Your task to perform on an android device: Open Amazon Image 0: 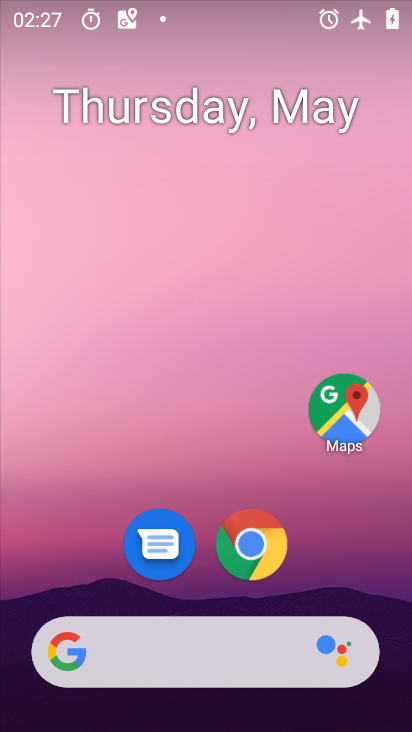
Step 0: drag from (381, 588) to (400, 246)
Your task to perform on an android device: Open Amazon Image 1: 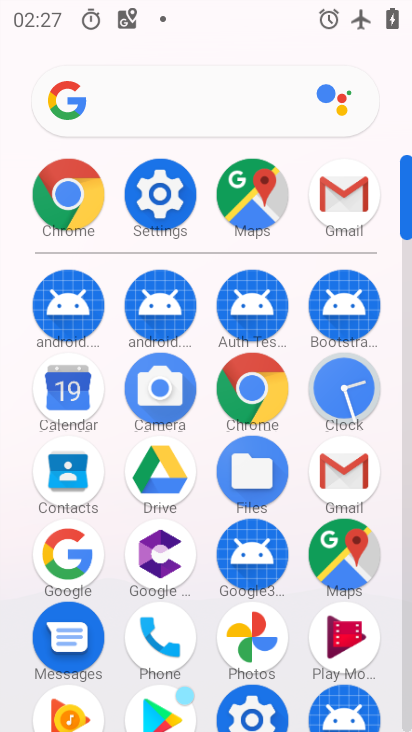
Step 1: click (262, 398)
Your task to perform on an android device: Open Amazon Image 2: 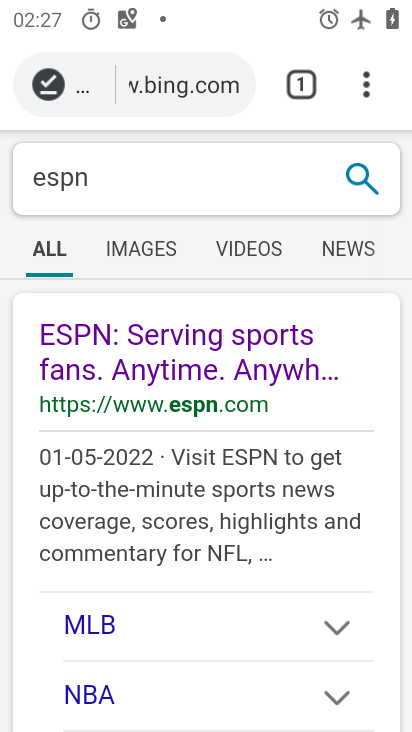
Step 2: task complete